Your task to perform on an android device: turn off smart reply in the gmail app Image 0: 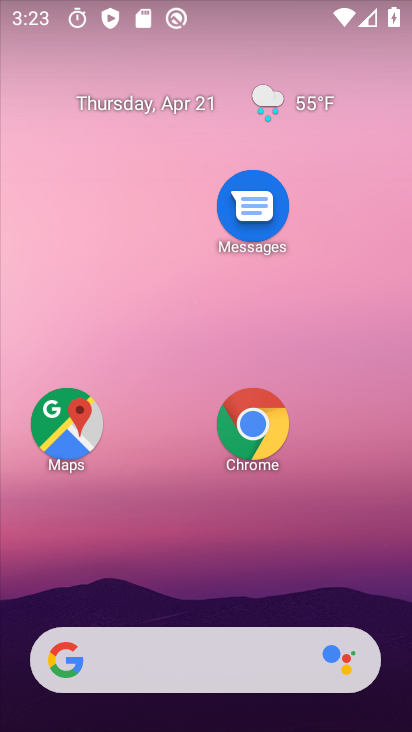
Step 0: drag from (201, 503) to (138, 150)
Your task to perform on an android device: turn off smart reply in the gmail app Image 1: 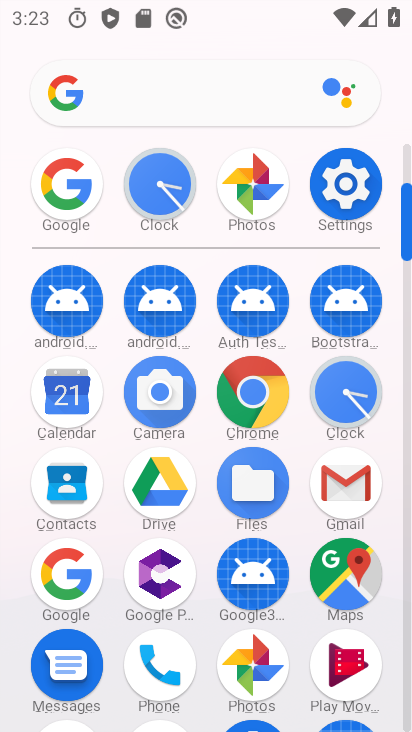
Step 1: click (341, 491)
Your task to perform on an android device: turn off smart reply in the gmail app Image 2: 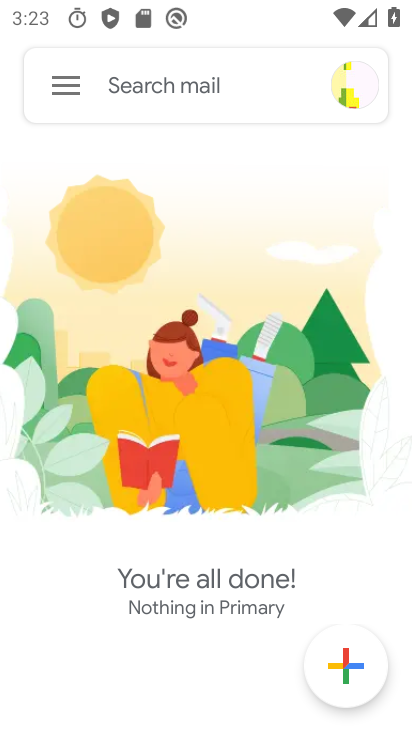
Step 2: click (66, 80)
Your task to perform on an android device: turn off smart reply in the gmail app Image 3: 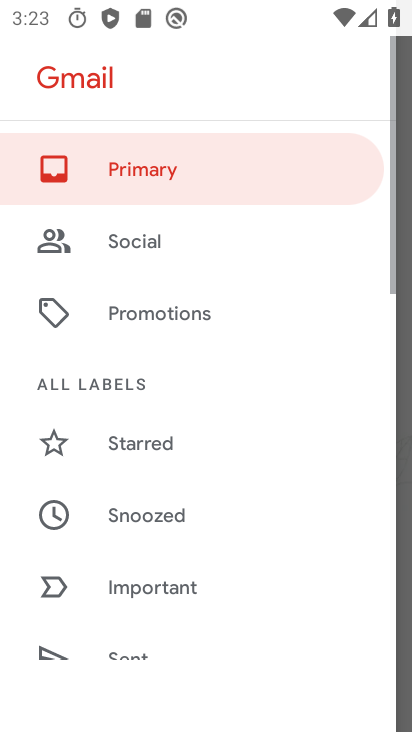
Step 3: drag from (215, 546) to (221, 110)
Your task to perform on an android device: turn off smart reply in the gmail app Image 4: 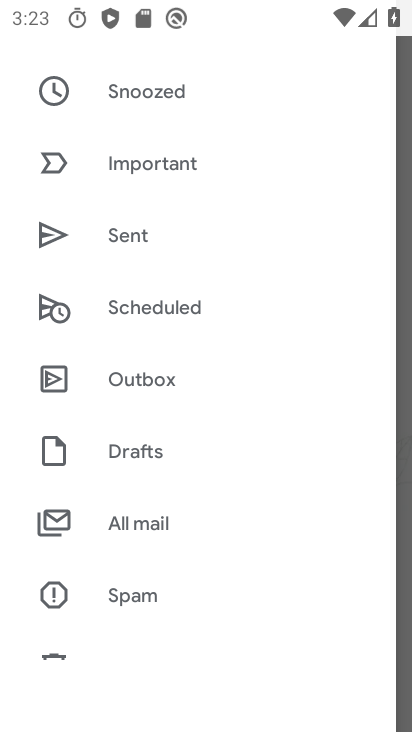
Step 4: drag from (215, 562) to (173, 264)
Your task to perform on an android device: turn off smart reply in the gmail app Image 5: 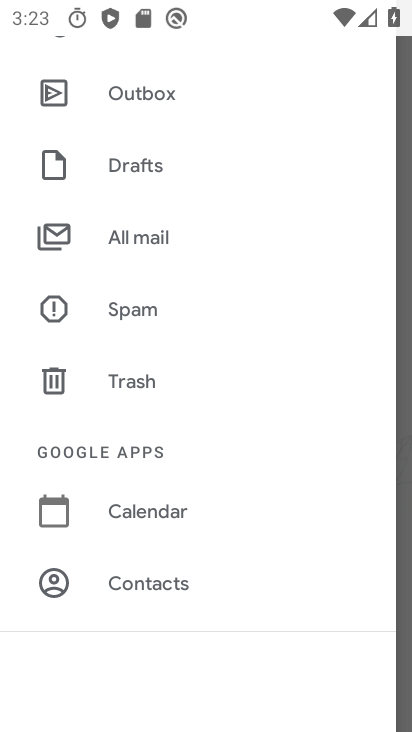
Step 5: drag from (239, 613) to (203, 262)
Your task to perform on an android device: turn off smart reply in the gmail app Image 6: 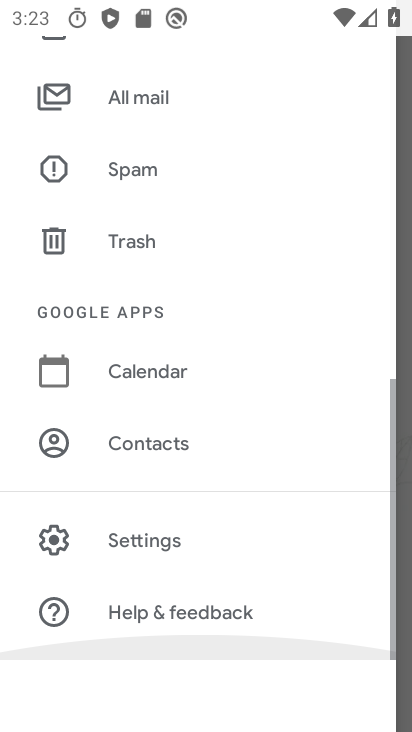
Step 6: click (203, 538)
Your task to perform on an android device: turn off smart reply in the gmail app Image 7: 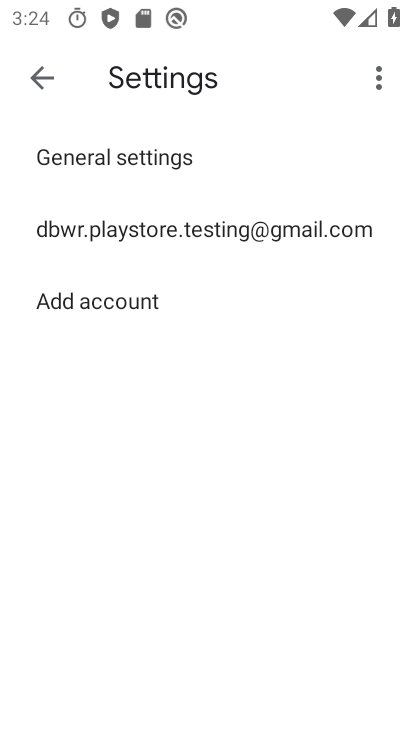
Step 7: click (98, 241)
Your task to perform on an android device: turn off smart reply in the gmail app Image 8: 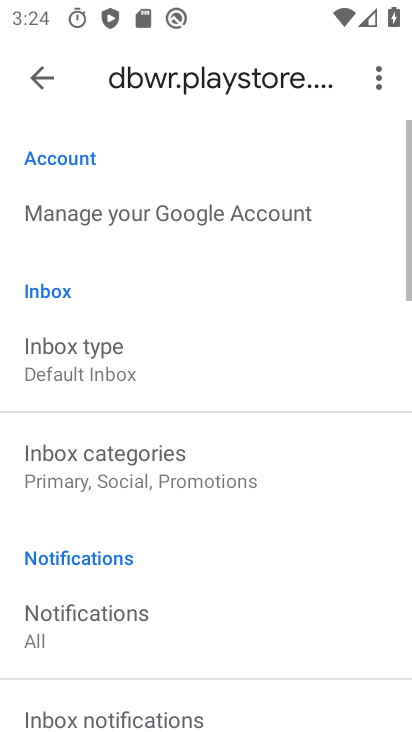
Step 8: drag from (226, 603) to (206, 273)
Your task to perform on an android device: turn off smart reply in the gmail app Image 9: 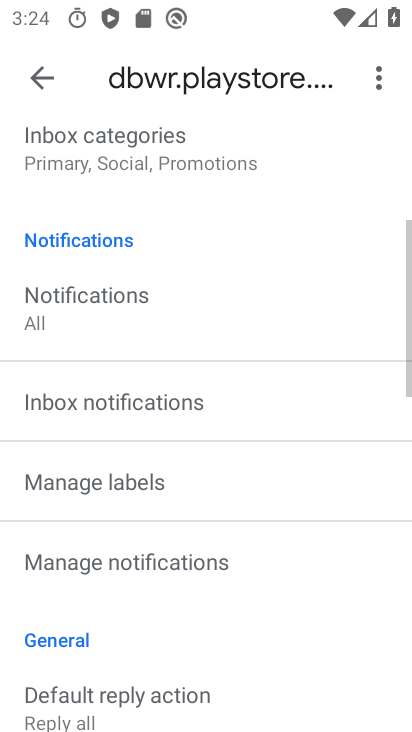
Step 9: drag from (249, 694) to (211, 368)
Your task to perform on an android device: turn off smart reply in the gmail app Image 10: 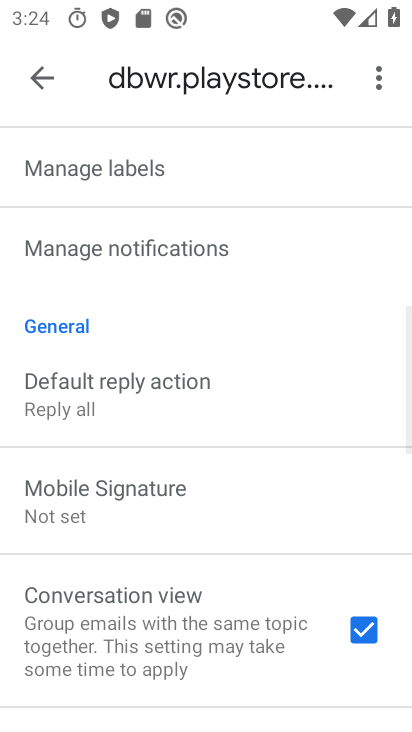
Step 10: drag from (248, 638) to (199, 218)
Your task to perform on an android device: turn off smart reply in the gmail app Image 11: 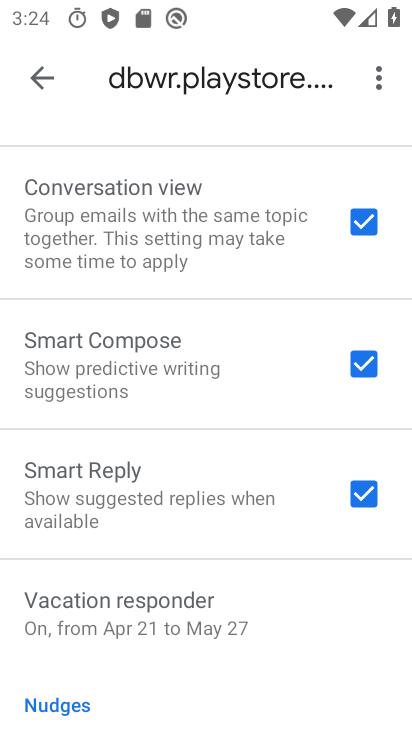
Step 11: click (363, 489)
Your task to perform on an android device: turn off smart reply in the gmail app Image 12: 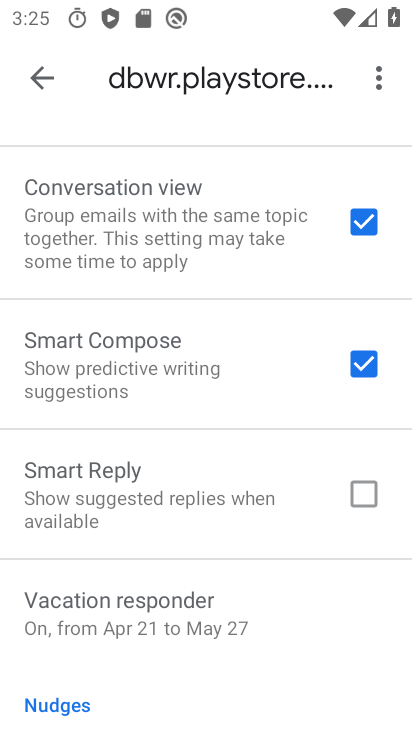
Step 12: task complete